Your task to perform on an android device: turn off translation in the chrome app Image 0: 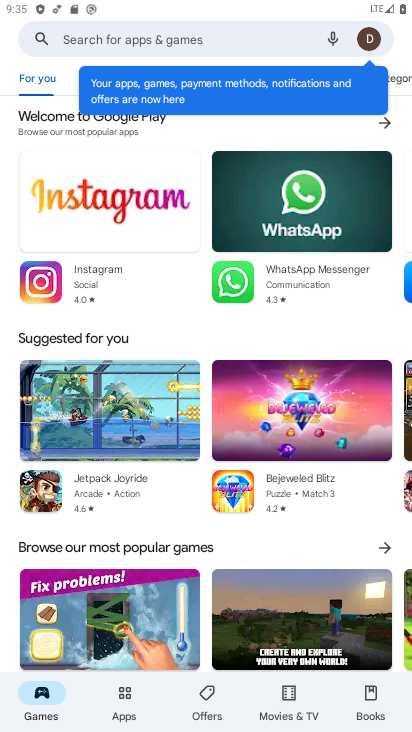
Step 0: press home button
Your task to perform on an android device: turn off translation in the chrome app Image 1: 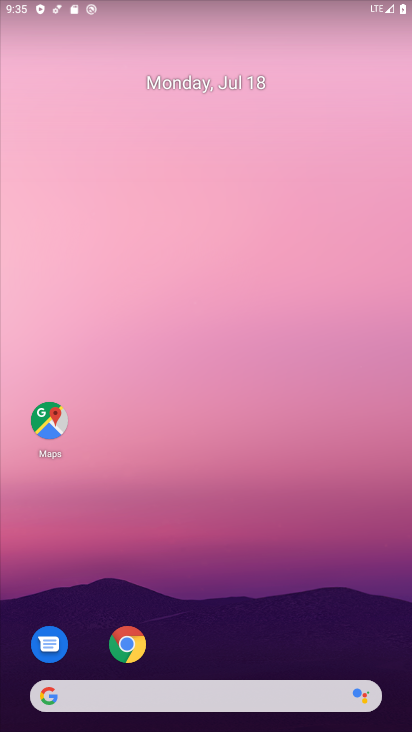
Step 1: drag from (351, 629) to (376, 85)
Your task to perform on an android device: turn off translation in the chrome app Image 2: 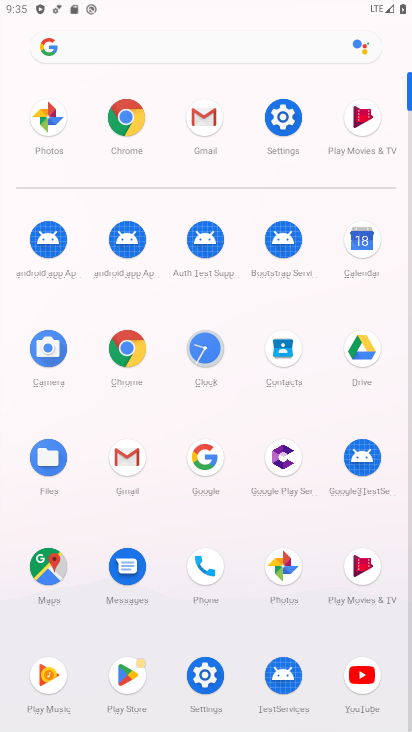
Step 2: click (131, 347)
Your task to perform on an android device: turn off translation in the chrome app Image 3: 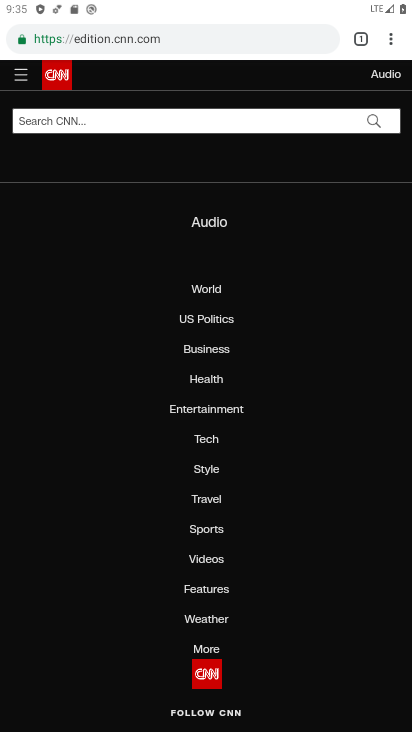
Step 3: click (388, 42)
Your task to perform on an android device: turn off translation in the chrome app Image 4: 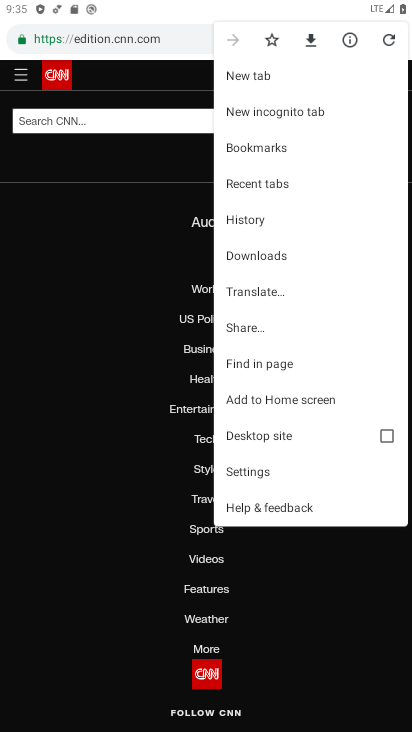
Step 4: click (296, 473)
Your task to perform on an android device: turn off translation in the chrome app Image 5: 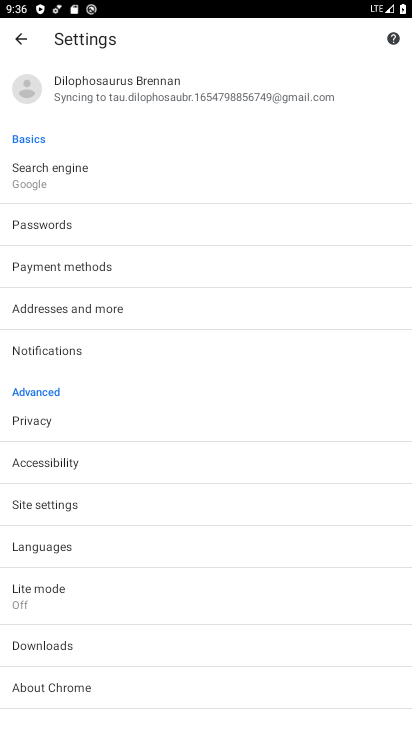
Step 5: drag from (300, 591) to (311, 405)
Your task to perform on an android device: turn off translation in the chrome app Image 6: 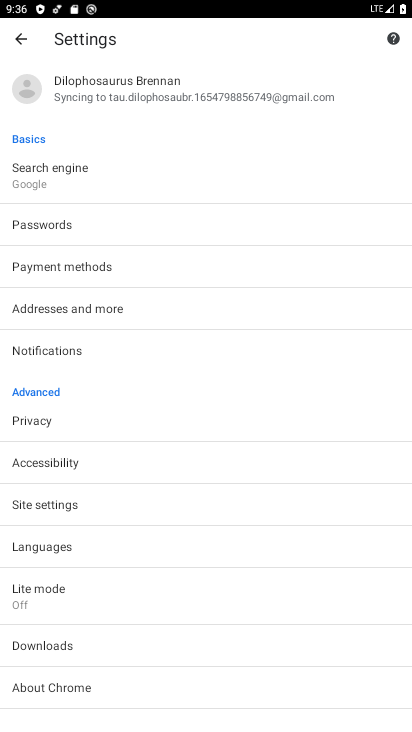
Step 6: click (128, 546)
Your task to perform on an android device: turn off translation in the chrome app Image 7: 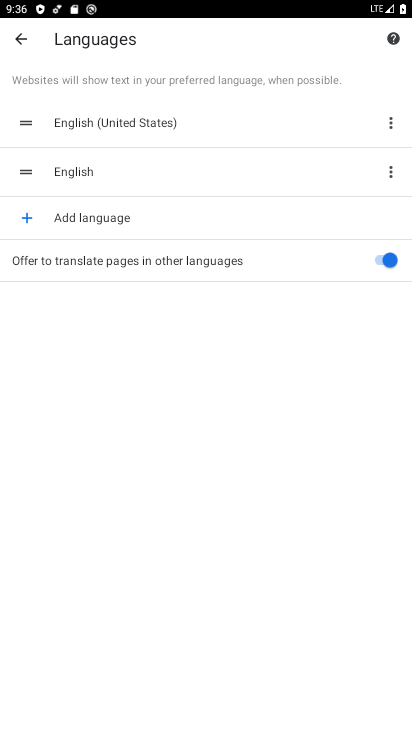
Step 7: click (381, 262)
Your task to perform on an android device: turn off translation in the chrome app Image 8: 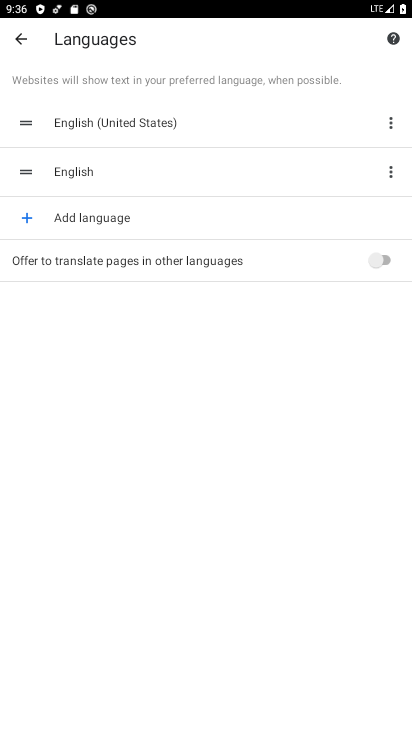
Step 8: task complete